Your task to perform on an android device: uninstall "Pinterest" Image 0: 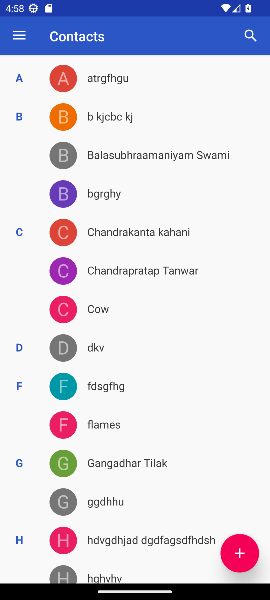
Step 0: press home button
Your task to perform on an android device: uninstall "Pinterest" Image 1: 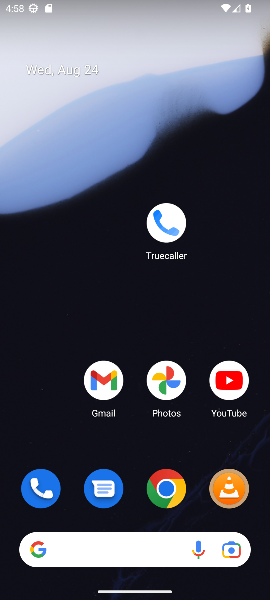
Step 1: drag from (126, 515) to (126, 219)
Your task to perform on an android device: uninstall "Pinterest" Image 2: 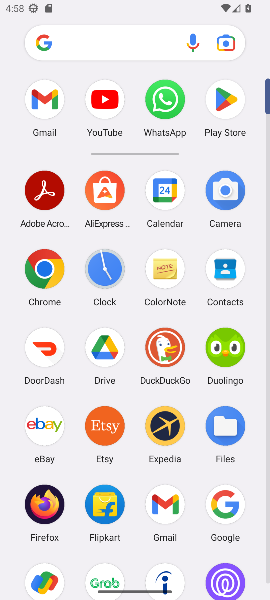
Step 2: click (216, 106)
Your task to perform on an android device: uninstall "Pinterest" Image 3: 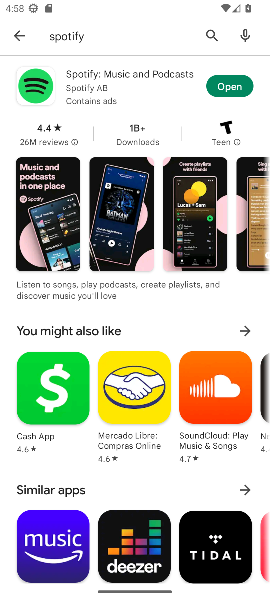
Step 3: click (208, 38)
Your task to perform on an android device: uninstall "Pinterest" Image 4: 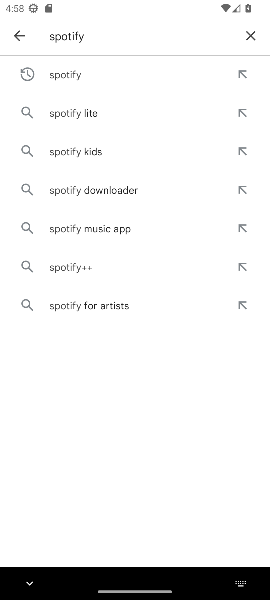
Step 4: click (250, 35)
Your task to perform on an android device: uninstall "Pinterest" Image 5: 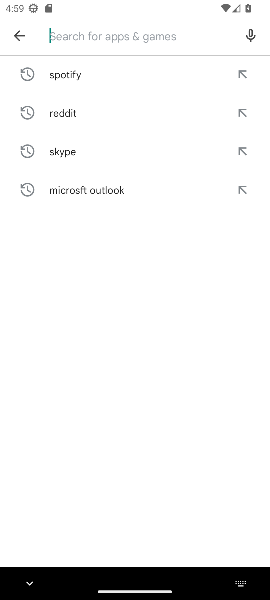
Step 5: type "pinterrest"
Your task to perform on an android device: uninstall "Pinterest" Image 6: 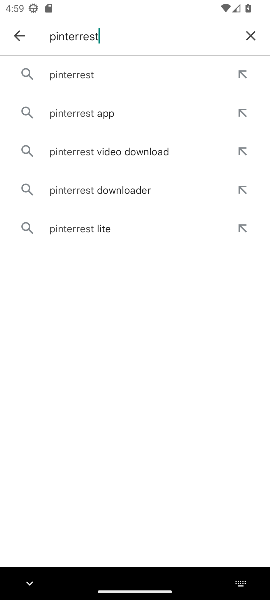
Step 6: click (108, 88)
Your task to perform on an android device: uninstall "Pinterest" Image 7: 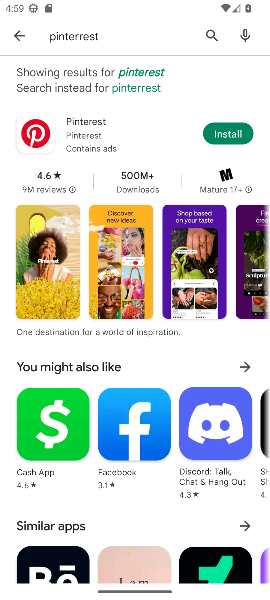
Step 7: click (223, 136)
Your task to perform on an android device: uninstall "Pinterest" Image 8: 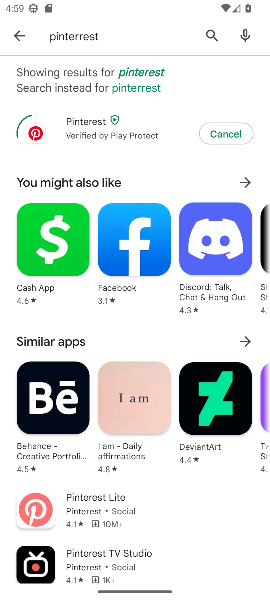
Step 8: task complete